Your task to perform on an android device: all mails in gmail Image 0: 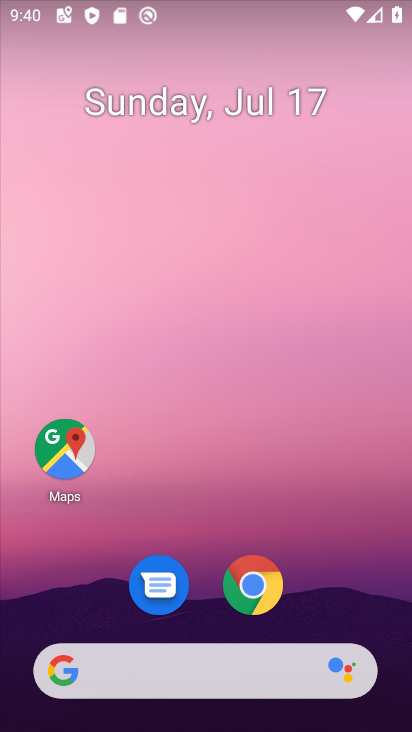
Step 0: drag from (346, 579) to (315, 30)
Your task to perform on an android device: all mails in gmail Image 1: 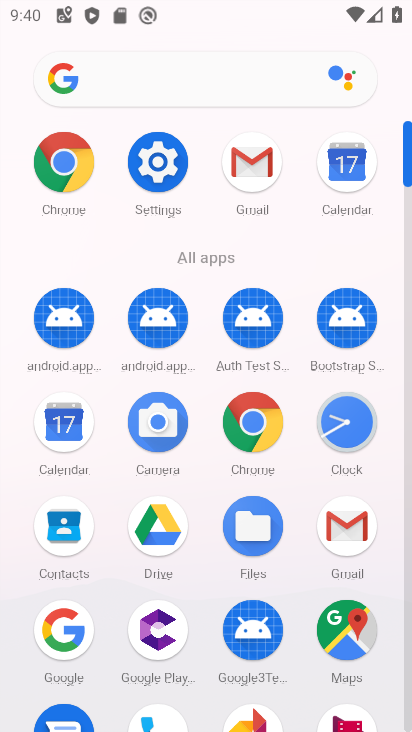
Step 1: click (265, 169)
Your task to perform on an android device: all mails in gmail Image 2: 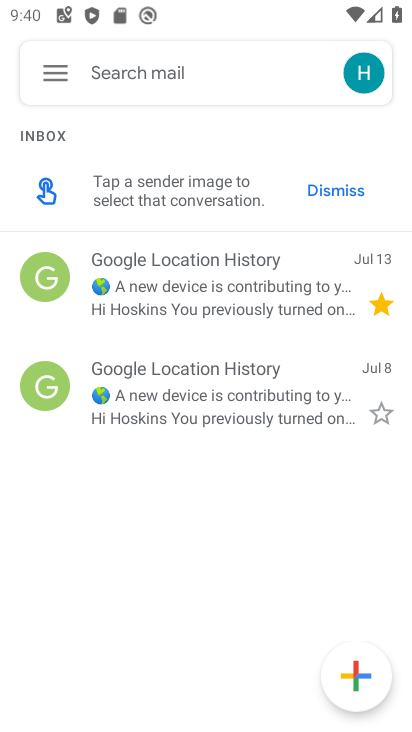
Step 2: click (54, 84)
Your task to perform on an android device: all mails in gmail Image 3: 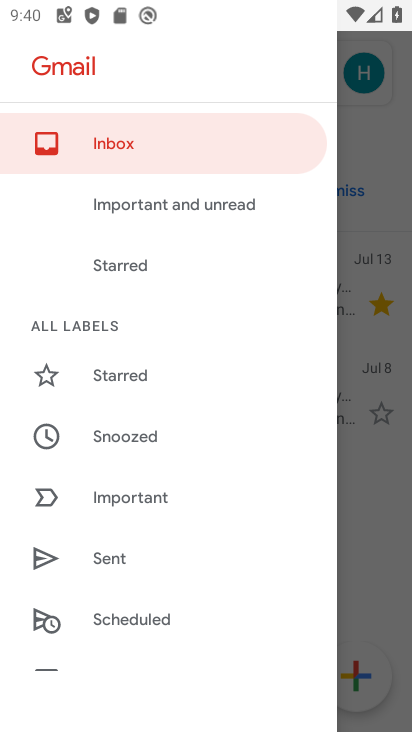
Step 3: drag from (162, 544) to (202, 57)
Your task to perform on an android device: all mails in gmail Image 4: 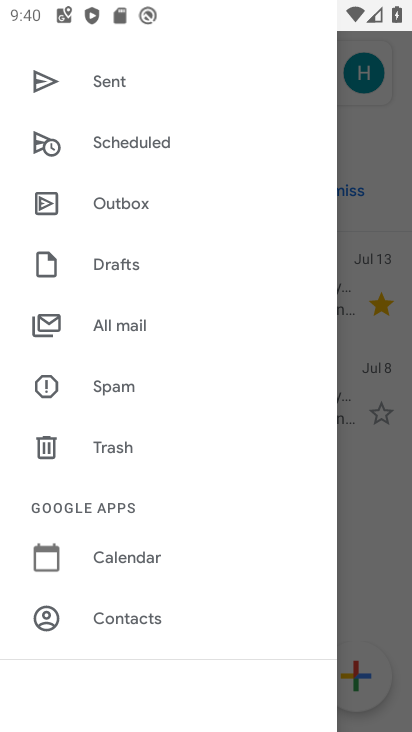
Step 4: click (128, 317)
Your task to perform on an android device: all mails in gmail Image 5: 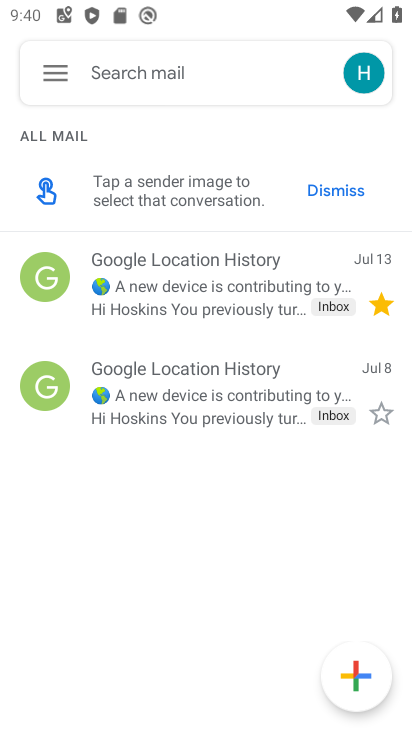
Step 5: task complete